Your task to perform on an android device: add a label to a message in the gmail app Image 0: 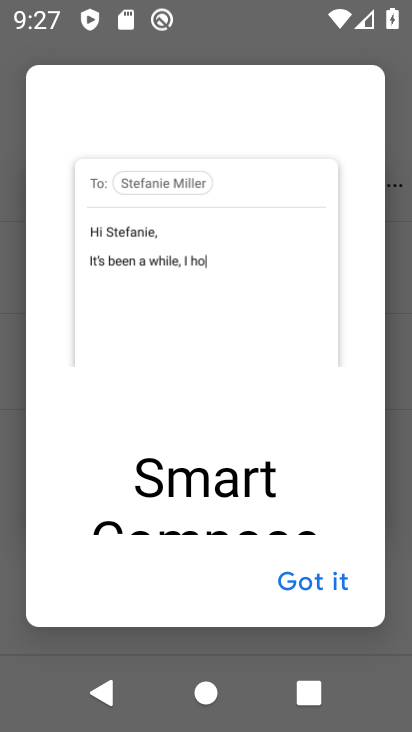
Step 0: press home button
Your task to perform on an android device: add a label to a message in the gmail app Image 1: 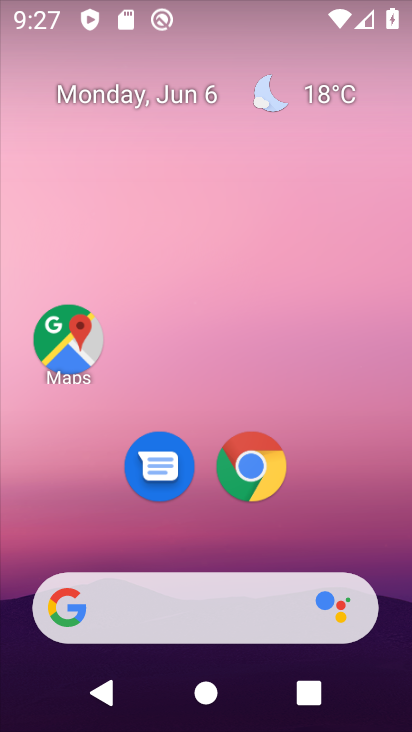
Step 1: drag from (211, 535) to (218, 23)
Your task to perform on an android device: add a label to a message in the gmail app Image 2: 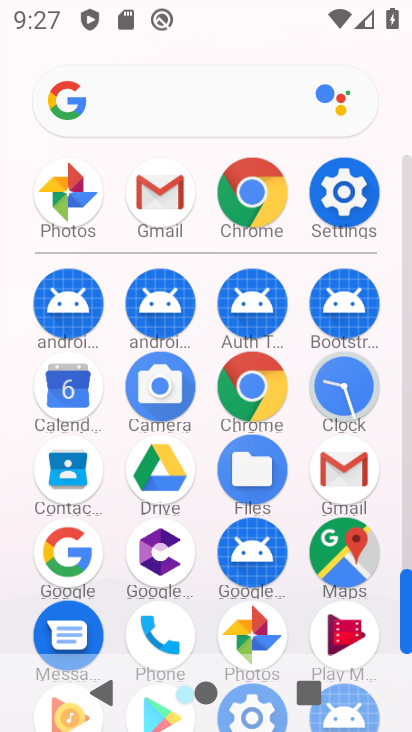
Step 2: click (324, 467)
Your task to perform on an android device: add a label to a message in the gmail app Image 3: 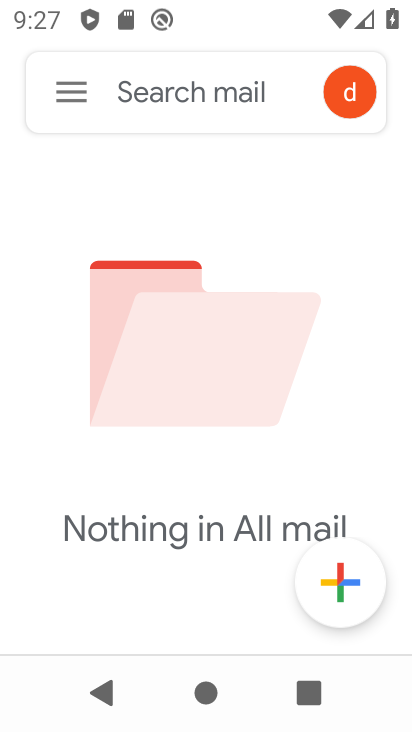
Step 3: click (84, 94)
Your task to perform on an android device: add a label to a message in the gmail app Image 4: 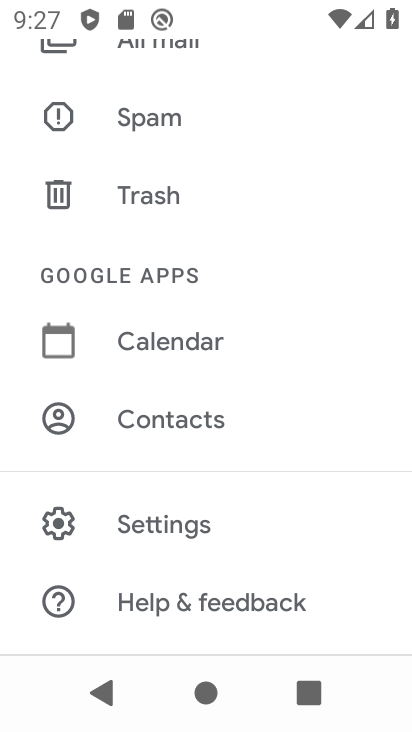
Step 4: drag from (161, 234) to (156, 545)
Your task to perform on an android device: add a label to a message in the gmail app Image 5: 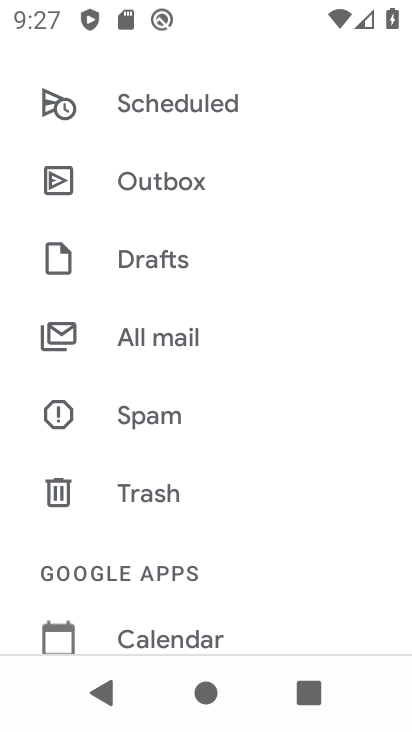
Step 5: click (178, 340)
Your task to perform on an android device: add a label to a message in the gmail app Image 6: 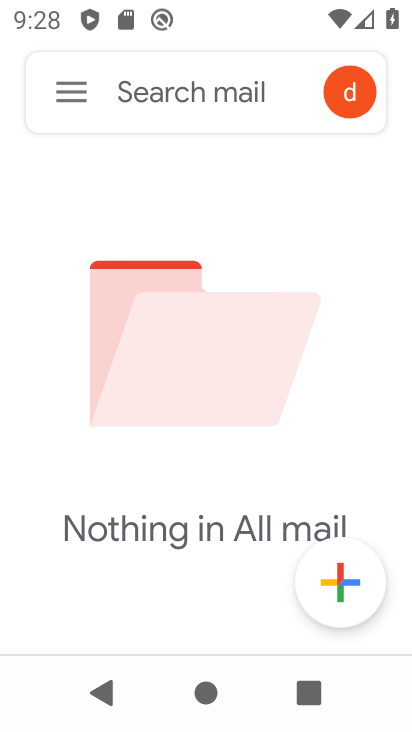
Step 6: task complete